Your task to perform on an android device: turn on showing notifications on the lock screen Image 0: 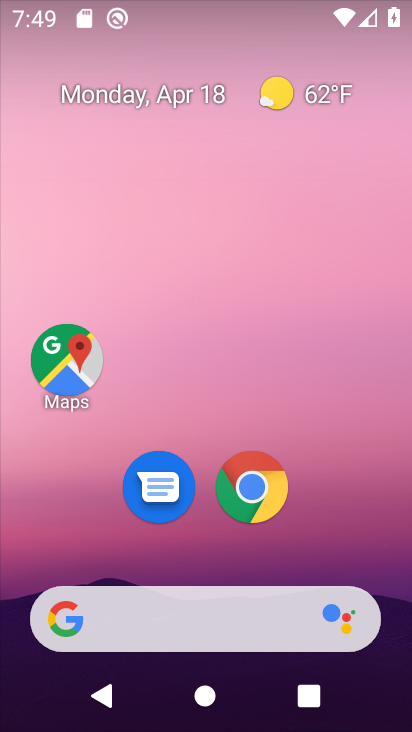
Step 0: press home button
Your task to perform on an android device: turn on showing notifications on the lock screen Image 1: 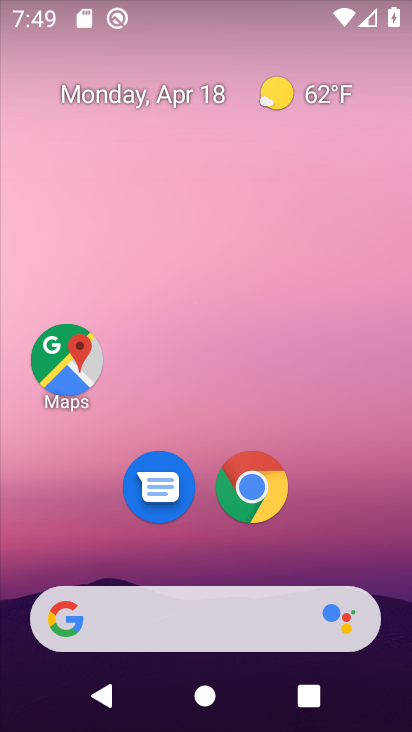
Step 1: drag from (203, 552) to (264, 3)
Your task to perform on an android device: turn on showing notifications on the lock screen Image 2: 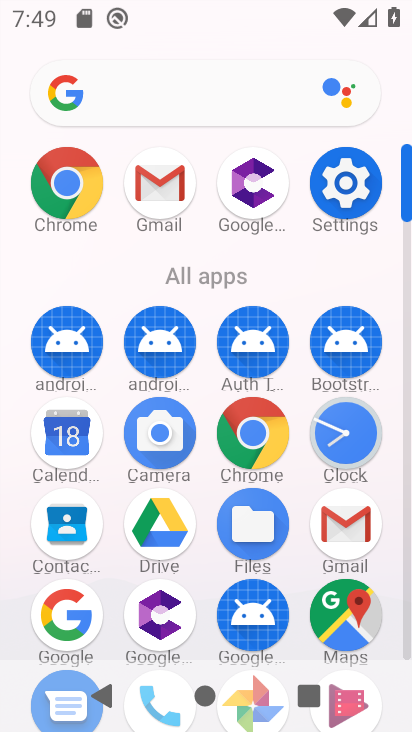
Step 2: click (341, 177)
Your task to perform on an android device: turn on showing notifications on the lock screen Image 3: 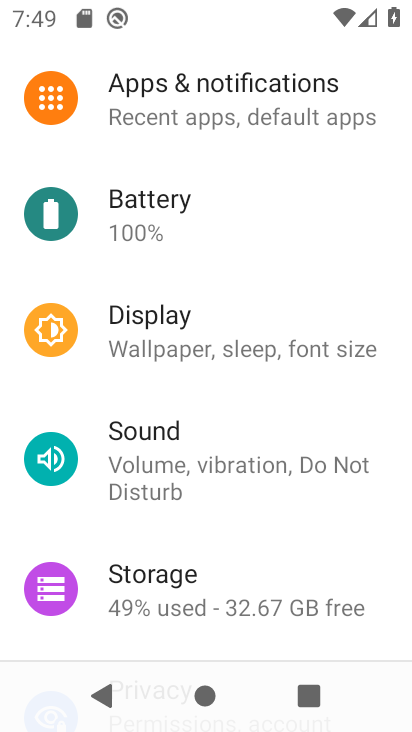
Step 3: click (213, 97)
Your task to perform on an android device: turn on showing notifications on the lock screen Image 4: 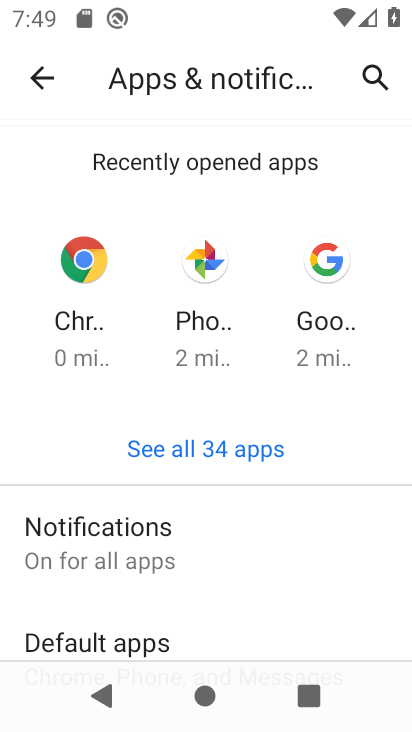
Step 4: click (194, 526)
Your task to perform on an android device: turn on showing notifications on the lock screen Image 5: 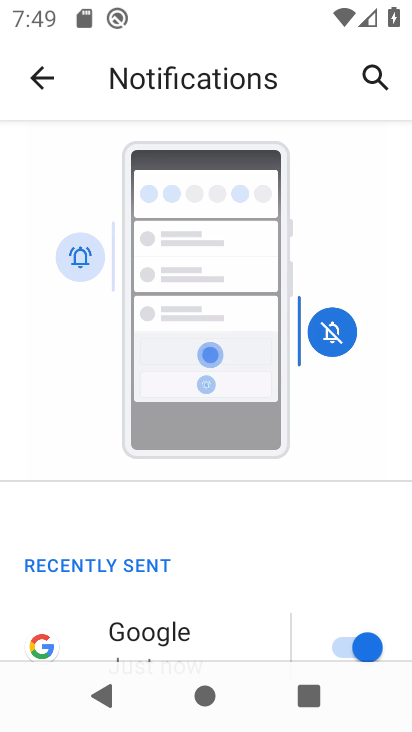
Step 5: drag from (221, 546) to (293, 152)
Your task to perform on an android device: turn on showing notifications on the lock screen Image 6: 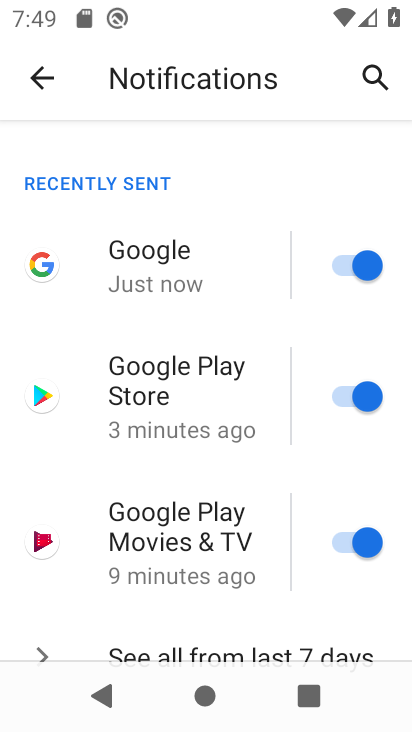
Step 6: drag from (211, 574) to (271, 265)
Your task to perform on an android device: turn on showing notifications on the lock screen Image 7: 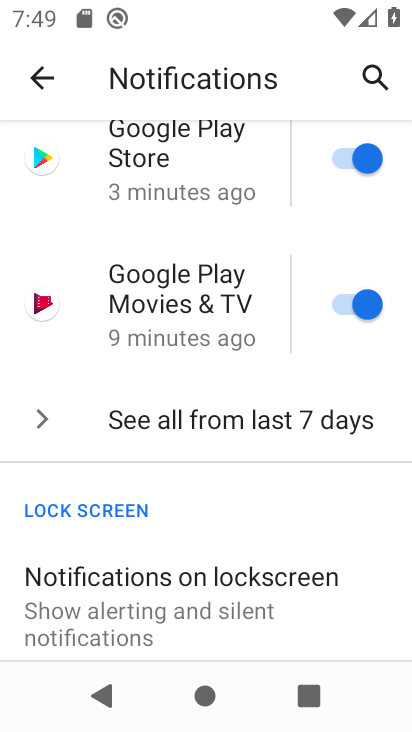
Step 7: click (240, 605)
Your task to perform on an android device: turn on showing notifications on the lock screen Image 8: 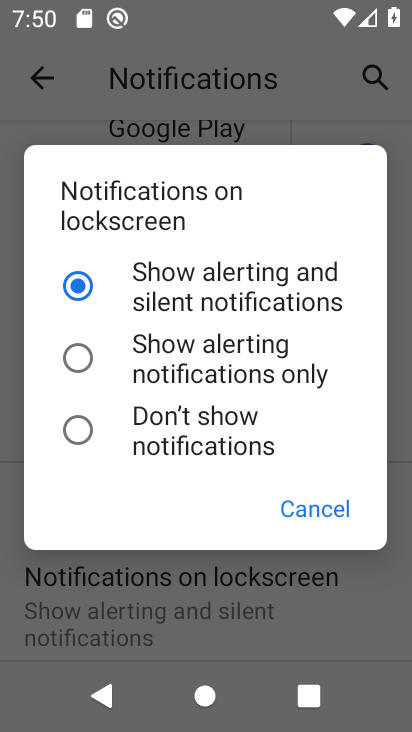
Step 8: click (64, 353)
Your task to perform on an android device: turn on showing notifications on the lock screen Image 9: 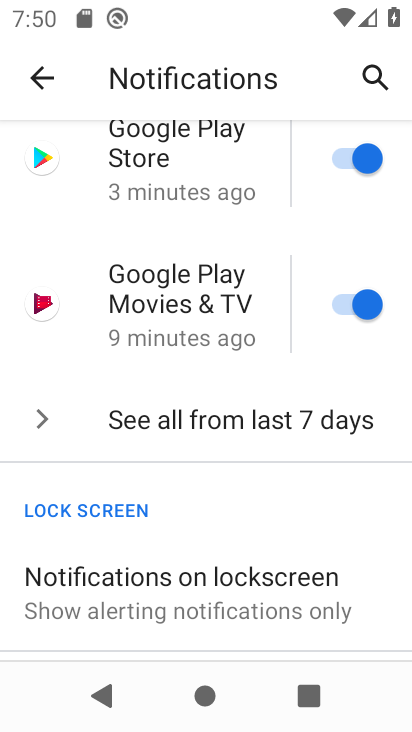
Step 9: task complete